Your task to perform on an android device: turn off improve location accuracy Image 0: 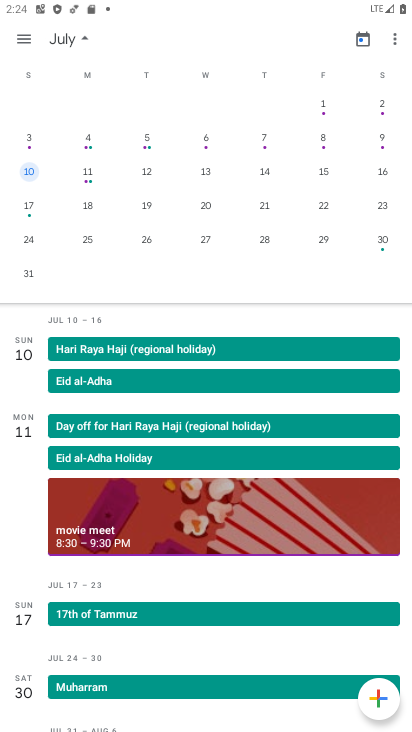
Step 0: press home button
Your task to perform on an android device: turn off improve location accuracy Image 1: 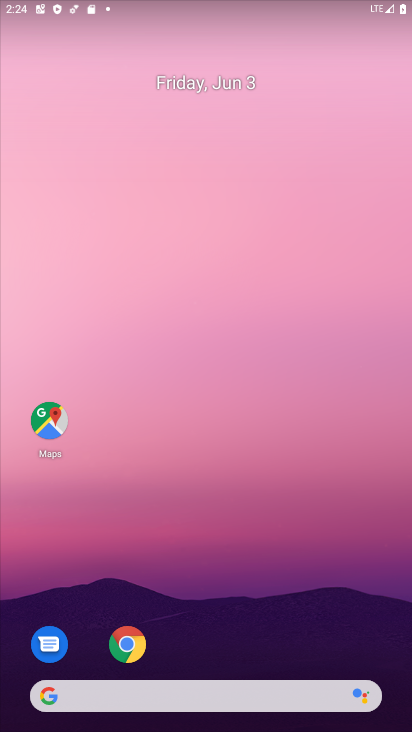
Step 1: drag from (199, 636) to (207, 217)
Your task to perform on an android device: turn off improve location accuracy Image 2: 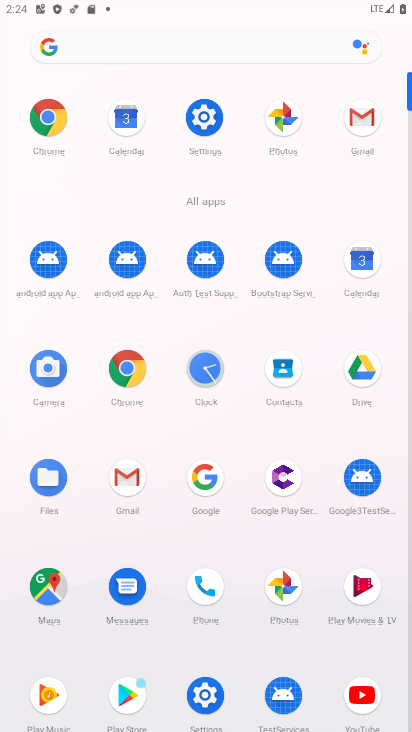
Step 2: click (203, 136)
Your task to perform on an android device: turn off improve location accuracy Image 3: 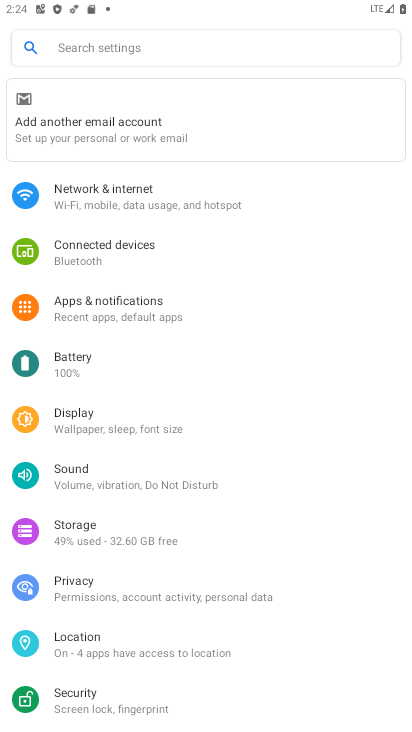
Step 3: click (161, 644)
Your task to perform on an android device: turn off improve location accuracy Image 4: 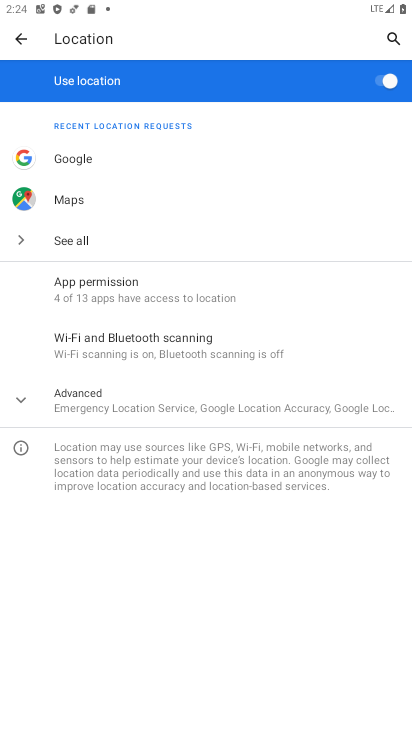
Step 4: click (127, 414)
Your task to perform on an android device: turn off improve location accuracy Image 5: 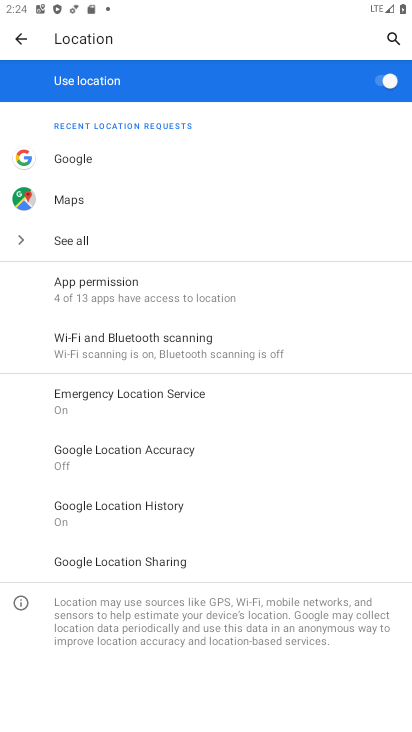
Step 5: click (188, 457)
Your task to perform on an android device: turn off improve location accuracy Image 6: 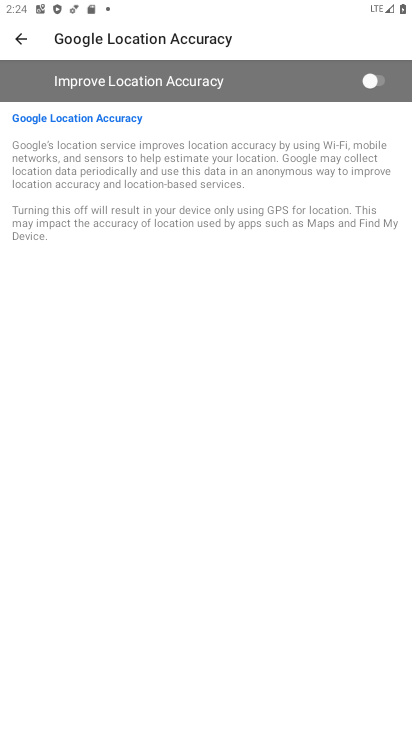
Step 6: task complete